Your task to perform on an android device: turn off airplane mode Image 0: 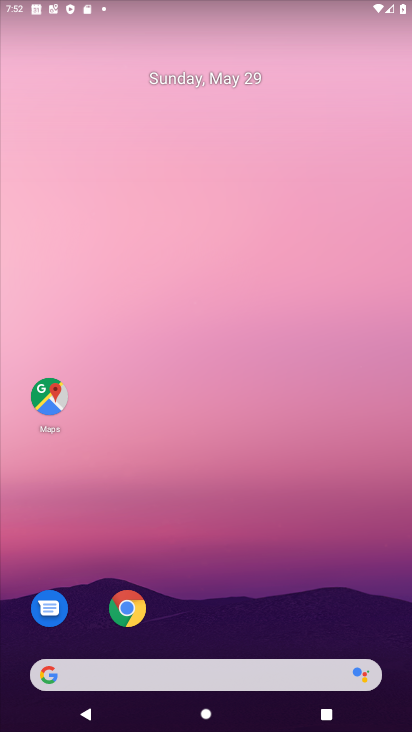
Step 0: drag from (255, 570) to (159, 112)
Your task to perform on an android device: turn off airplane mode Image 1: 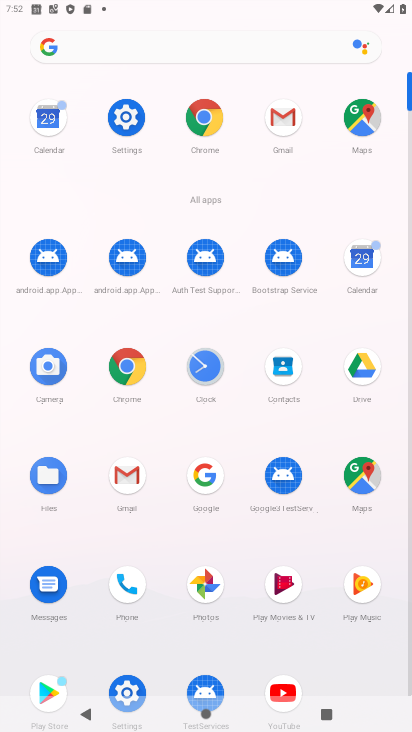
Step 1: click (117, 113)
Your task to perform on an android device: turn off airplane mode Image 2: 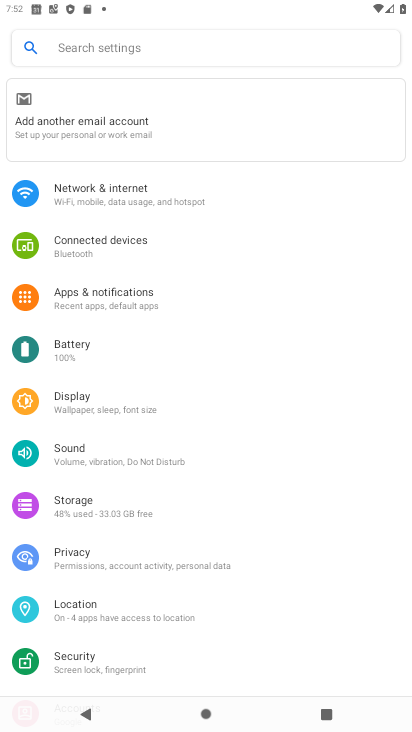
Step 2: click (101, 190)
Your task to perform on an android device: turn off airplane mode Image 3: 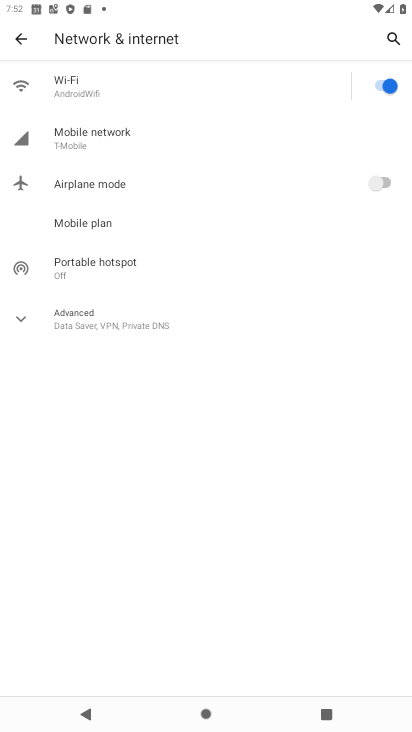
Step 3: task complete